Your task to perform on an android device: Toggle the flashlight Image 0: 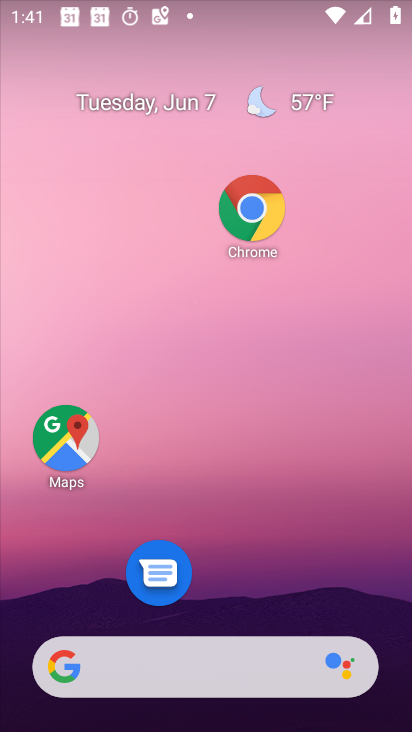
Step 0: drag from (217, 599) to (209, 190)
Your task to perform on an android device: Toggle the flashlight Image 1: 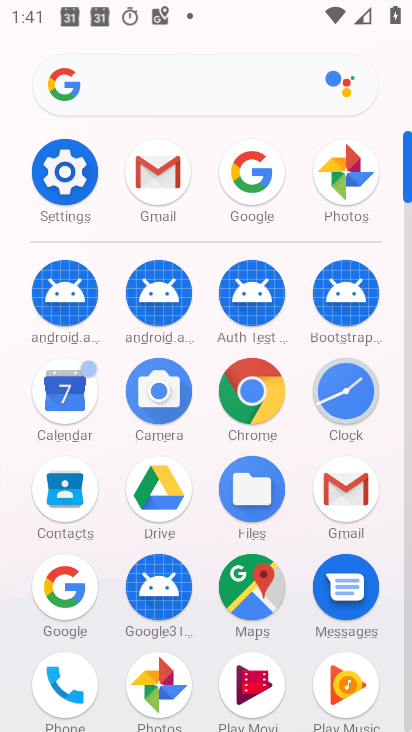
Step 1: click (77, 190)
Your task to perform on an android device: Toggle the flashlight Image 2: 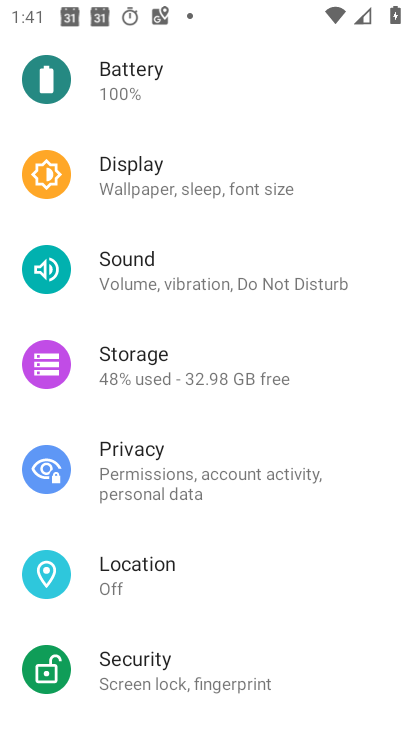
Step 2: task complete